Your task to perform on an android device: turn on the 24-hour format for clock Image 0: 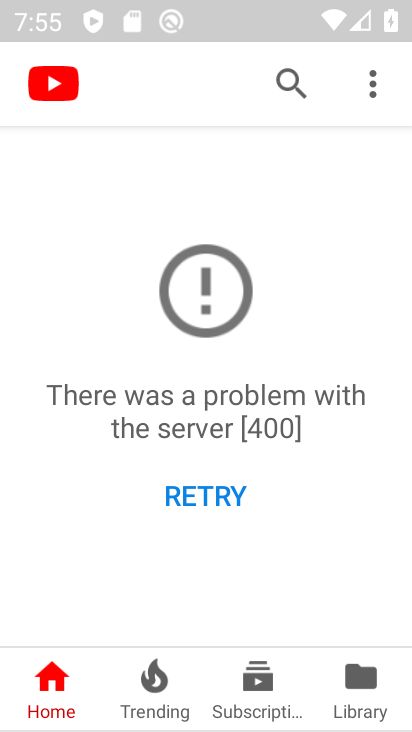
Step 0: press home button
Your task to perform on an android device: turn on the 24-hour format for clock Image 1: 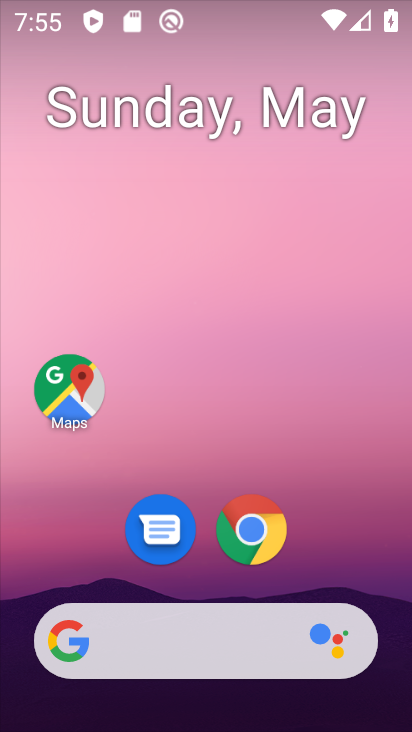
Step 1: drag from (366, 588) to (338, 202)
Your task to perform on an android device: turn on the 24-hour format for clock Image 2: 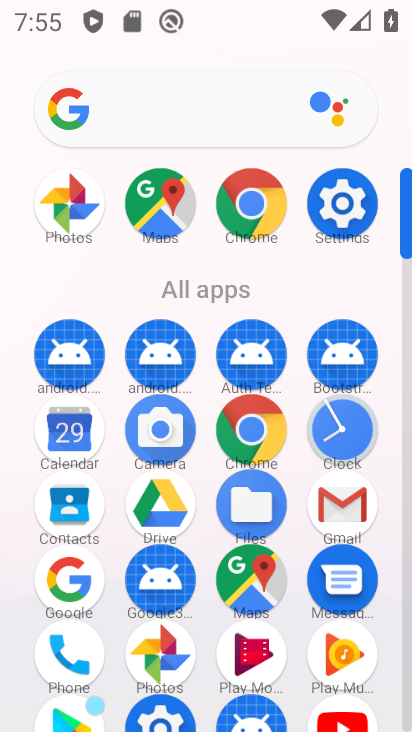
Step 2: click (332, 431)
Your task to perform on an android device: turn on the 24-hour format for clock Image 3: 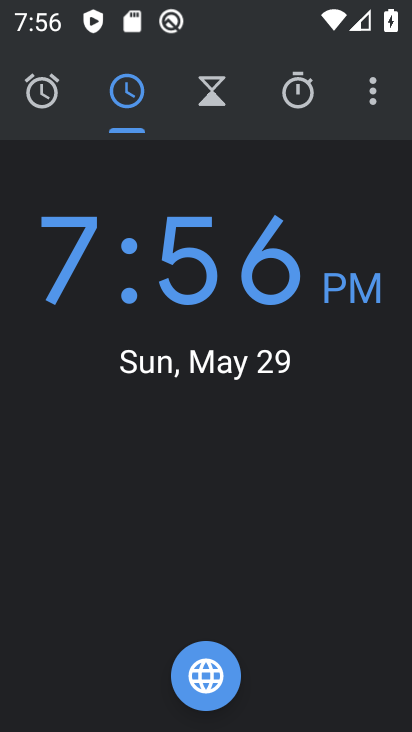
Step 3: click (378, 89)
Your task to perform on an android device: turn on the 24-hour format for clock Image 4: 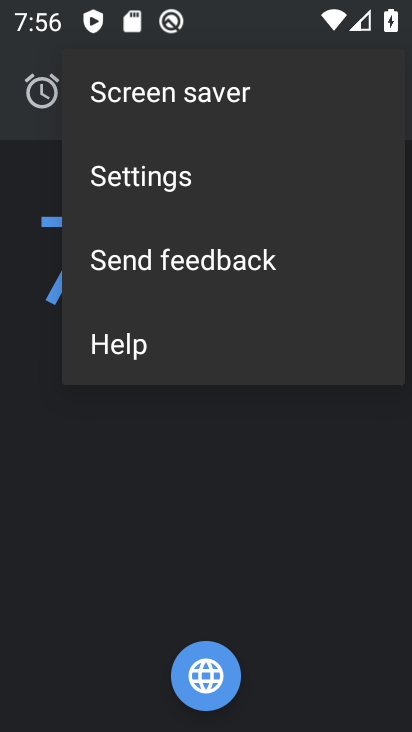
Step 4: click (222, 181)
Your task to perform on an android device: turn on the 24-hour format for clock Image 5: 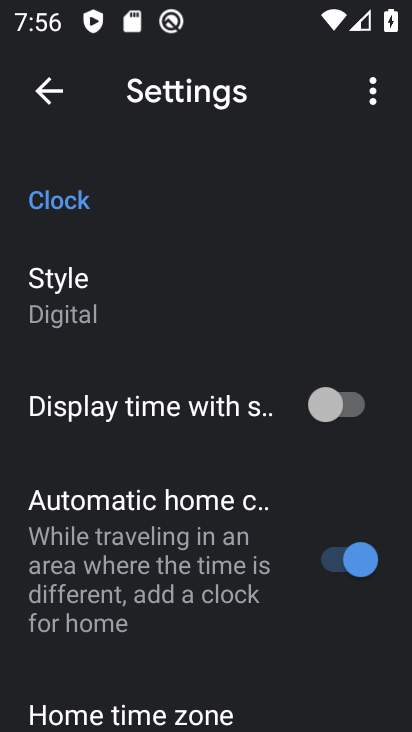
Step 5: task complete